Your task to perform on an android device: Go to accessibility settings Image 0: 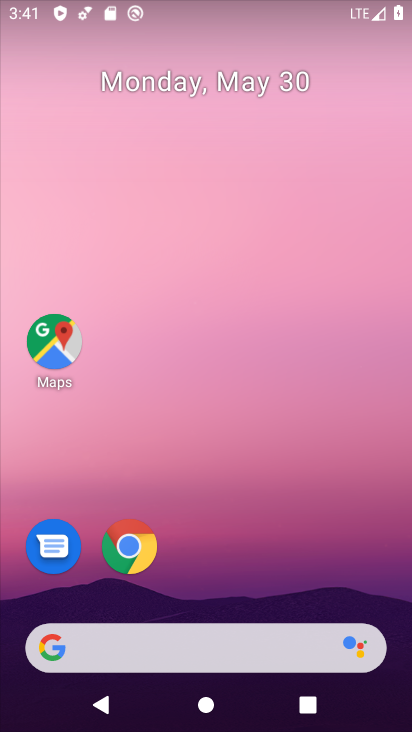
Step 0: drag from (206, 621) to (274, 84)
Your task to perform on an android device: Go to accessibility settings Image 1: 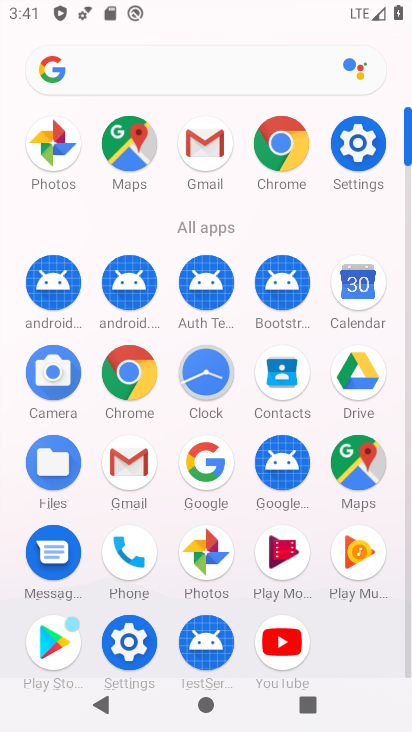
Step 1: click (384, 154)
Your task to perform on an android device: Go to accessibility settings Image 2: 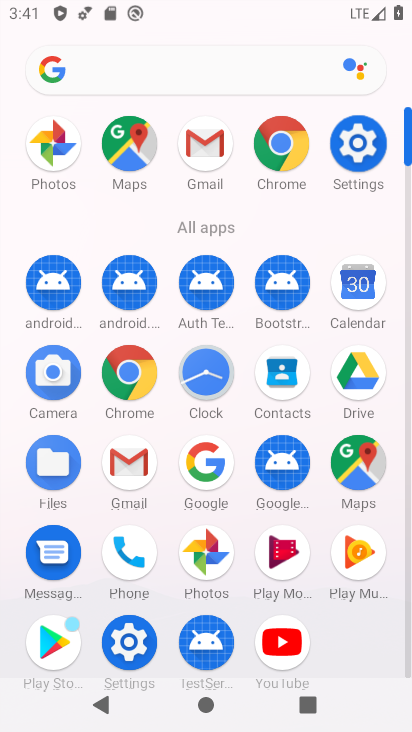
Step 2: click (384, 154)
Your task to perform on an android device: Go to accessibility settings Image 3: 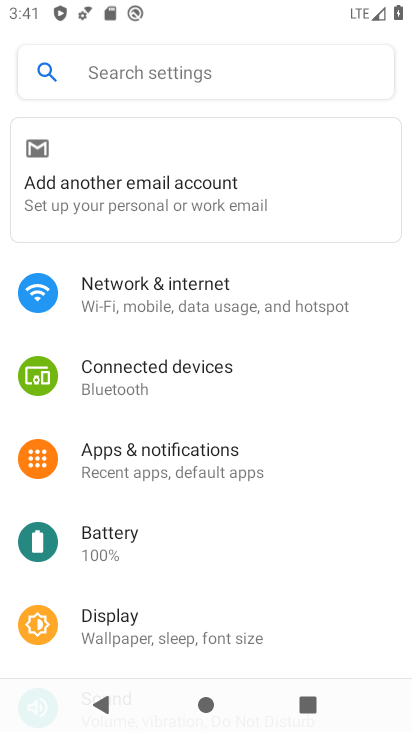
Step 3: drag from (246, 604) to (336, 74)
Your task to perform on an android device: Go to accessibility settings Image 4: 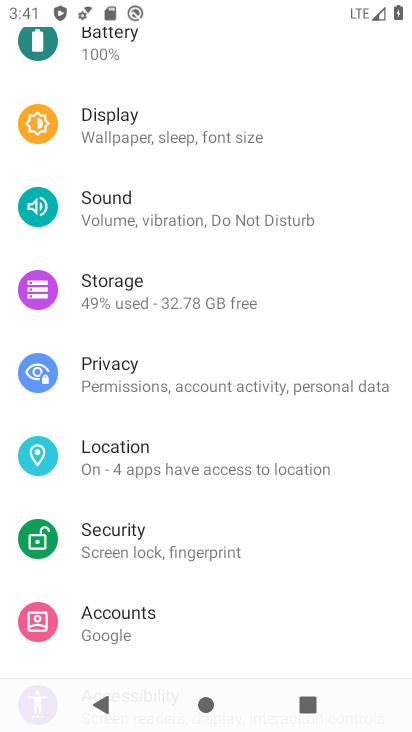
Step 4: drag from (236, 579) to (286, 2)
Your task to perform on an android device: Go to accessibility settings Image 5: 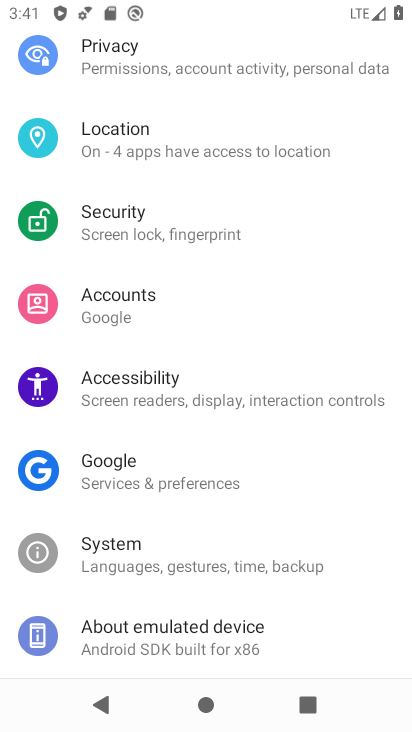
Step 5: click (171, 390)
Your task to perform on an android device: Go to accessibility settings Image 6: 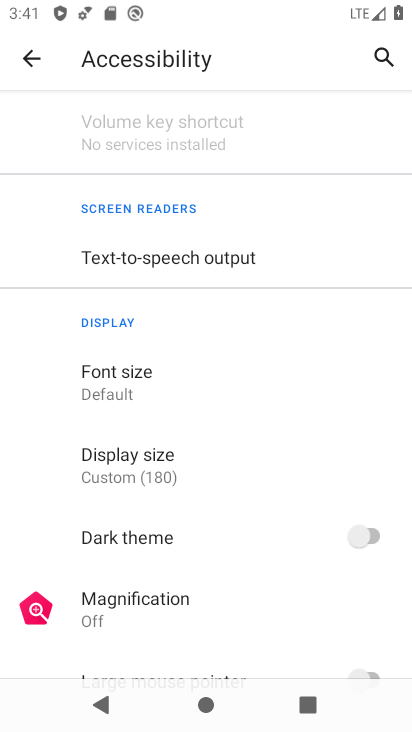
Step 6: task complete